Your task to perform on an android device: Open eBay Image 0: 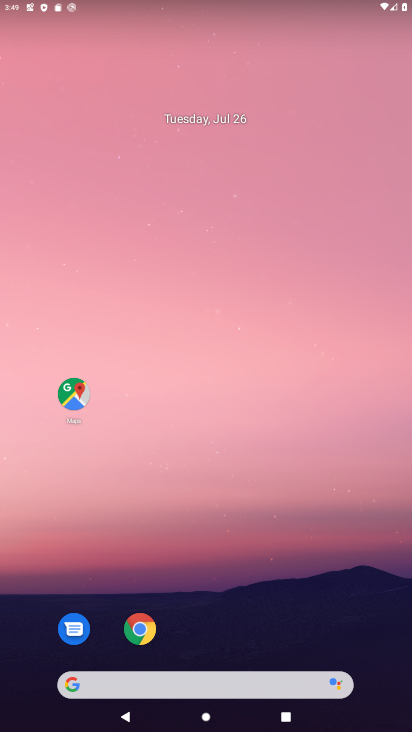
Step 0: click (137, 640)
Your task to perform on an android device: Open eBay Image 1: 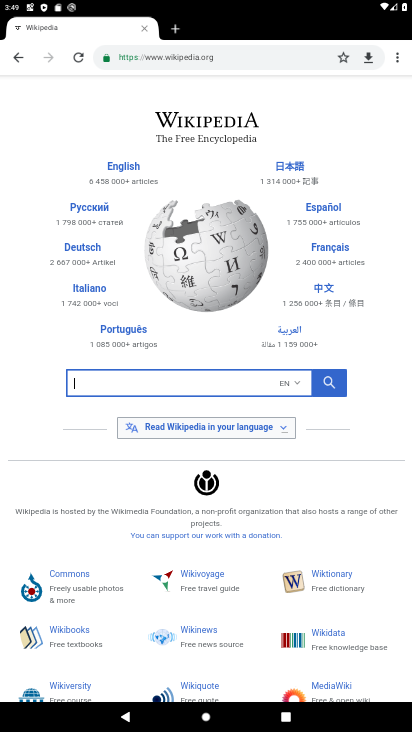
Step 1: click (254, 59)
Your task to perform on an android device: Open eBay Image 2: 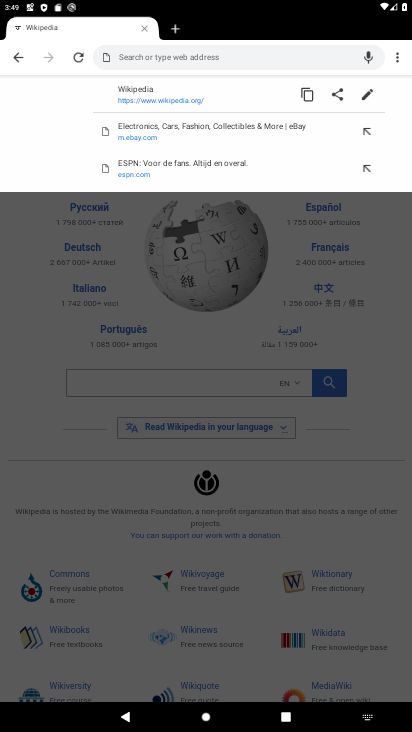
Step 2: type "ebay.com"
Your task to perform on an android device: Open eBay Image 3: 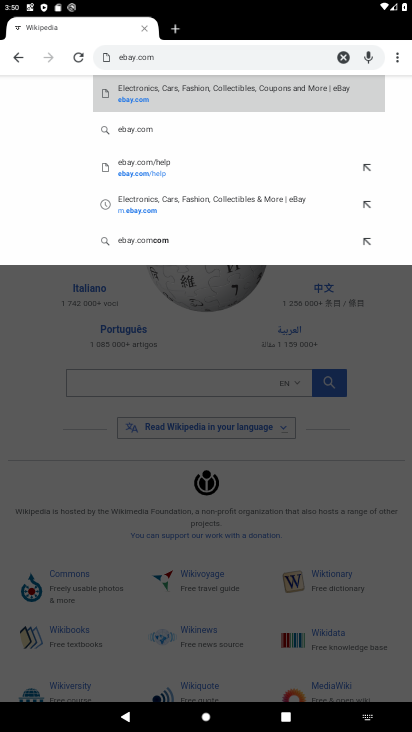
Step 3: click (214, 83)
Your task to perform on an android device: Open eBay Image 4: 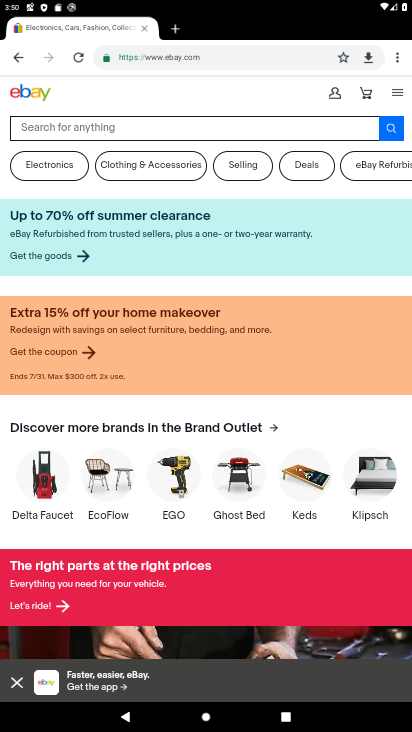
Step 4: task complete